Your task to perform on an android device: turn pop-ups on in chrome Image 0: 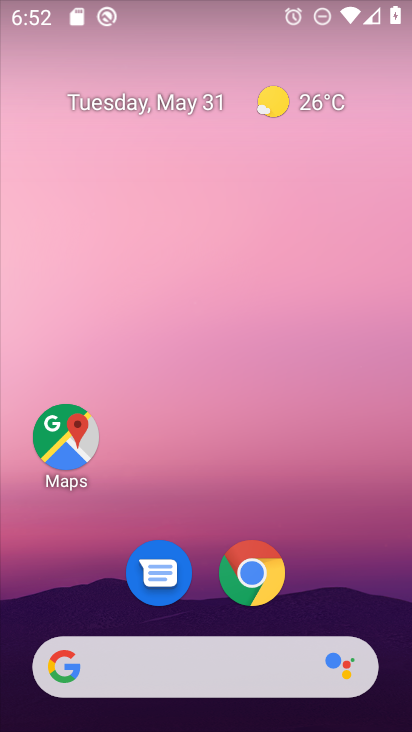
Step 0: drag from (399, 632) to (302, 4)
Your task to perform on an android device: turn pop-ups on in chrome Image 1: 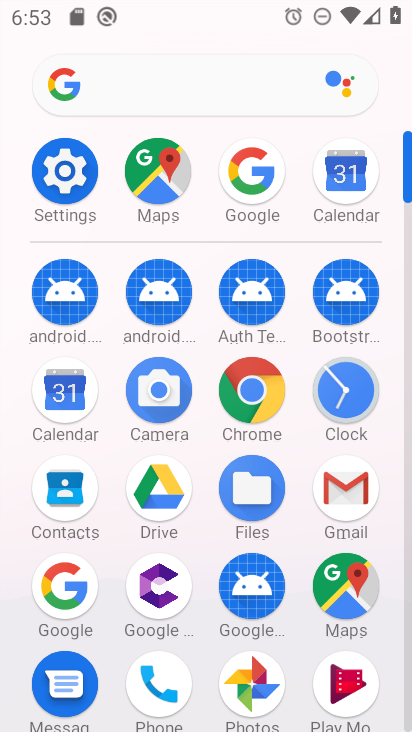
Step 1: click (245, 385)
Your task to perform on an android device: turn pop-ups on in chrome Image 2: 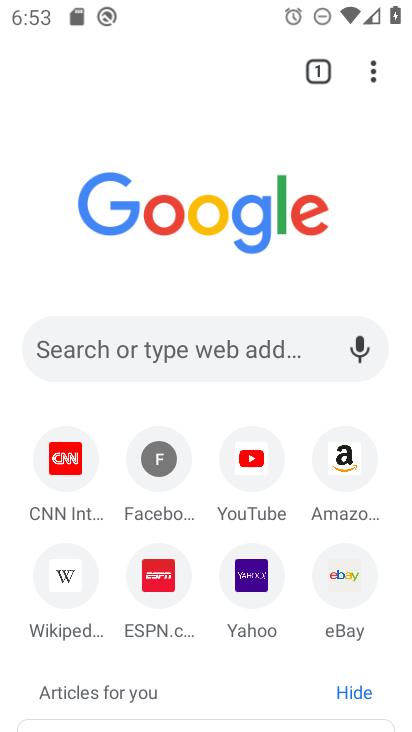
Step 2: click (377, 63)
Your task to perform on an android device: turn pop-ups on in chrome Image 3: 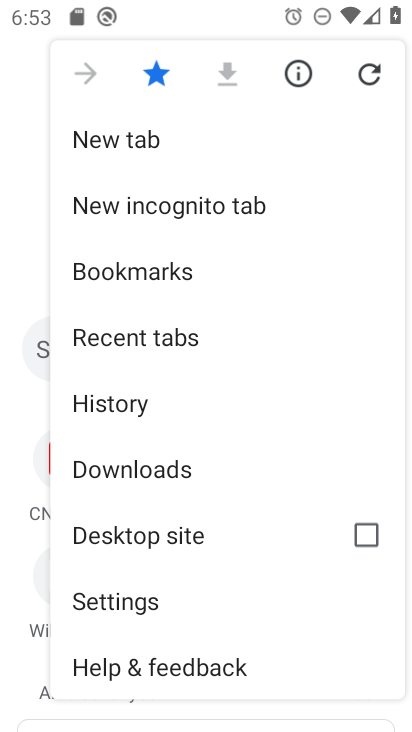
Step 3: click (179, 600)
Your task to perform on an android device: turn pop-ups on in chrome Image 4: 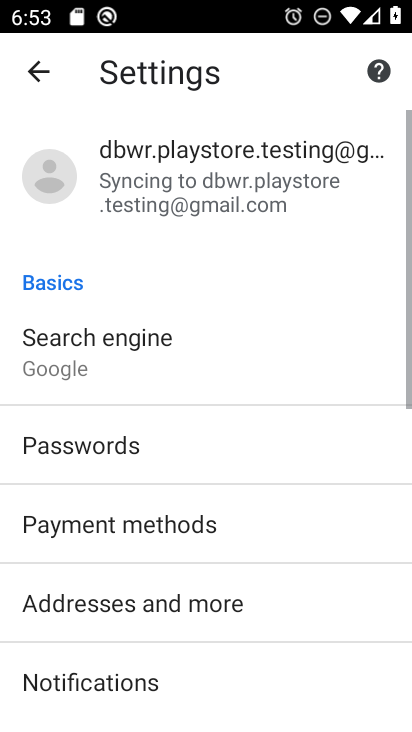
Step 4: drag from (179, 600) to (160, 166)
Your task to perform on an android device: turn pop-ups on in chrome Image 5: 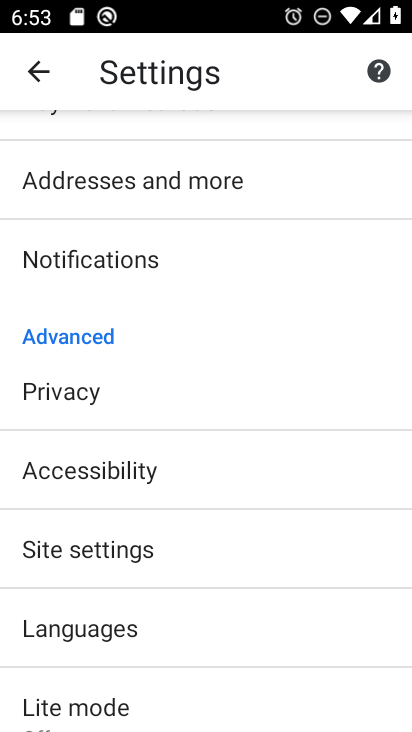
Step 5: click (162, 541)
Your task to perform on an android device: turn pop-ups on in chrome Image 6: 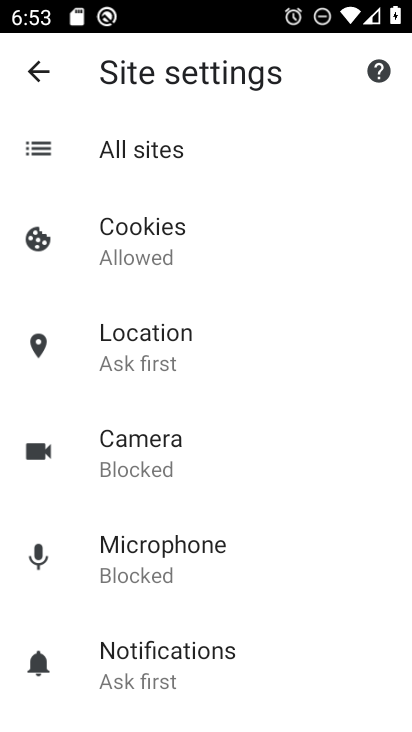
Step 6: drag from (186, 621) to (198, 119)
Your task to perform on an android device: turn pop-ups on in chrome Image 7: 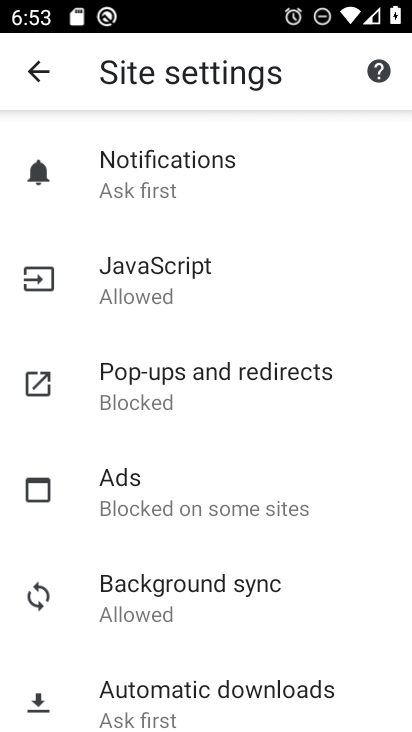
Step 7: click (222, 385)
Your task to perform on an android device: turn pop-ups on in chrome Image 8: 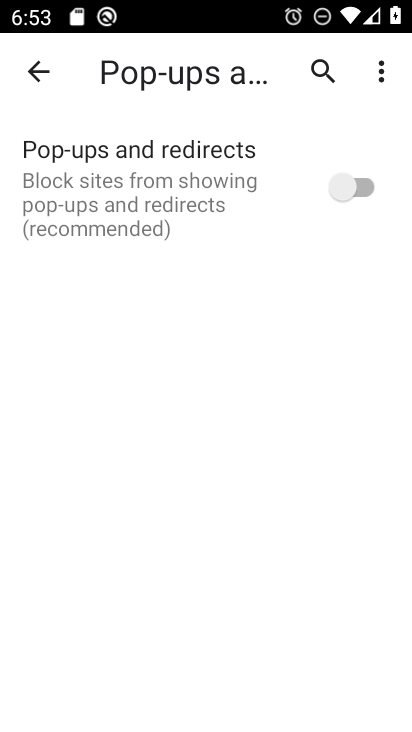
Step 8: click (332, 200)
Your task to perform on an android device: turn pop-ups on in chrome Image 9: 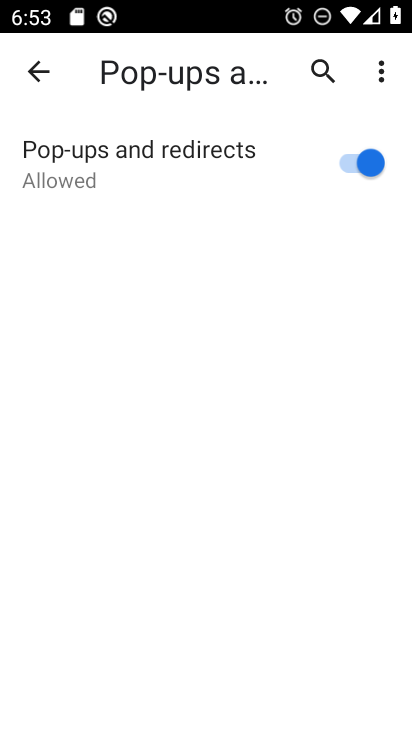
Step 9: task complete